Your task to perform on an android device: View the shopping cart on newegg.com. Image 0: 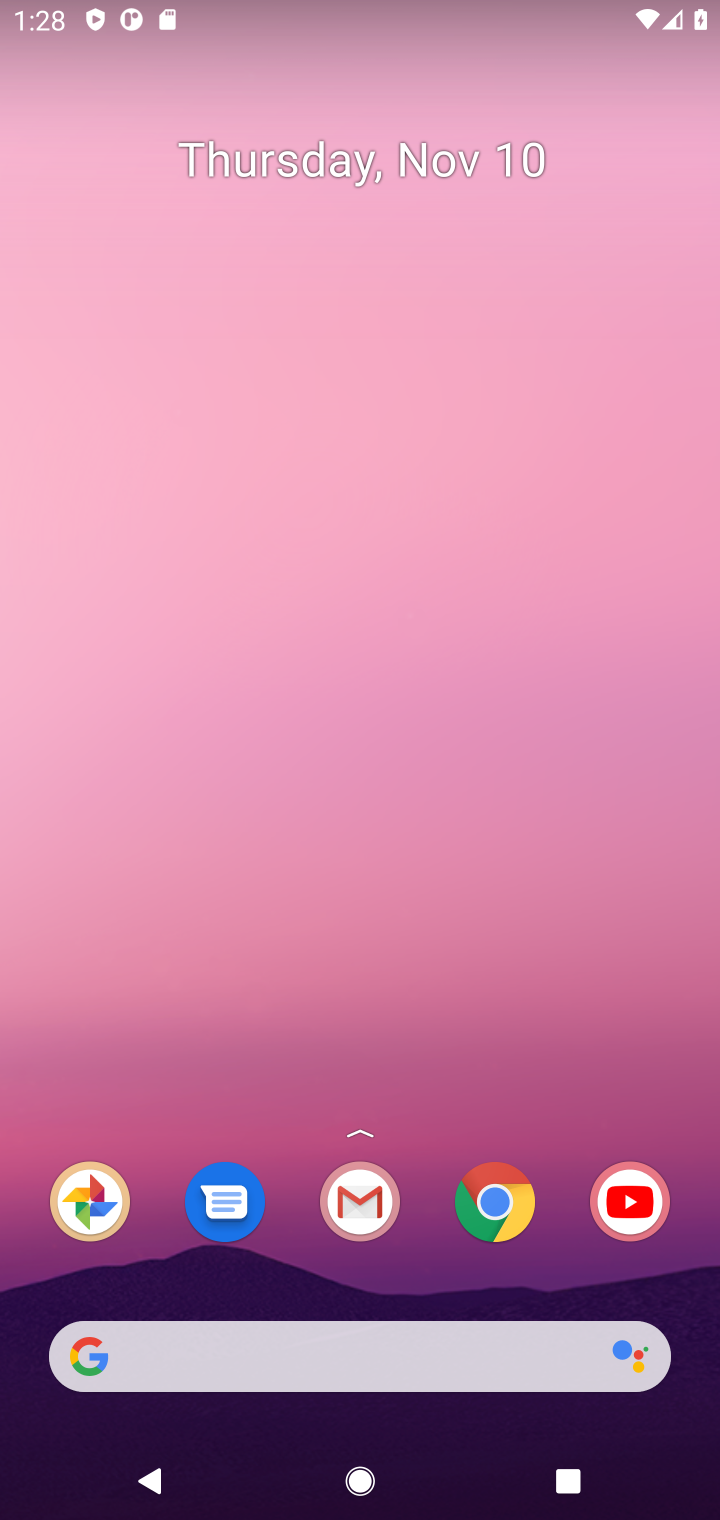
Step 0: click (483, 1202)
Your task to perform on an android device: View the shopping cart on newegg.com. Image 1: 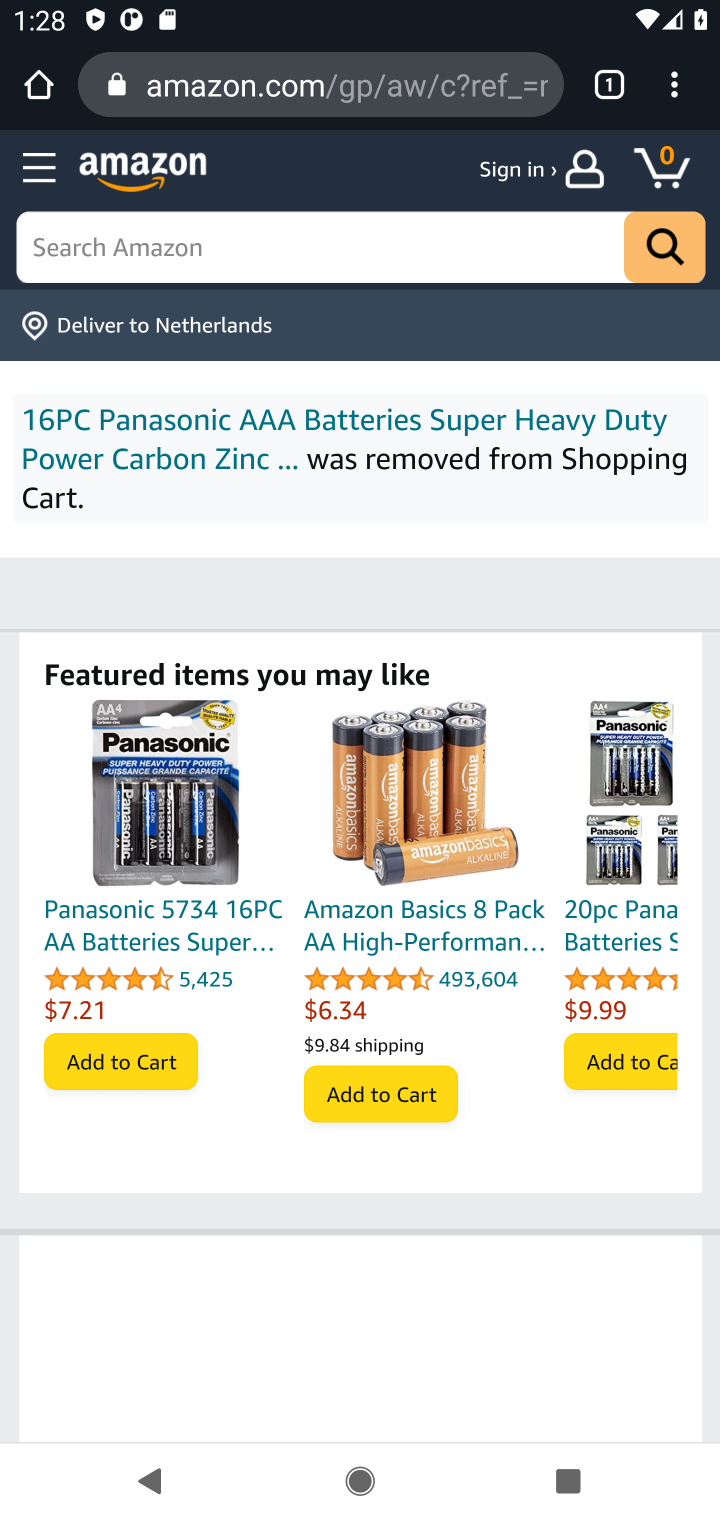
Step 1: click (308, 245)
Your task to perform on an android device: View the shopping cart on newegg.com. Image 2: 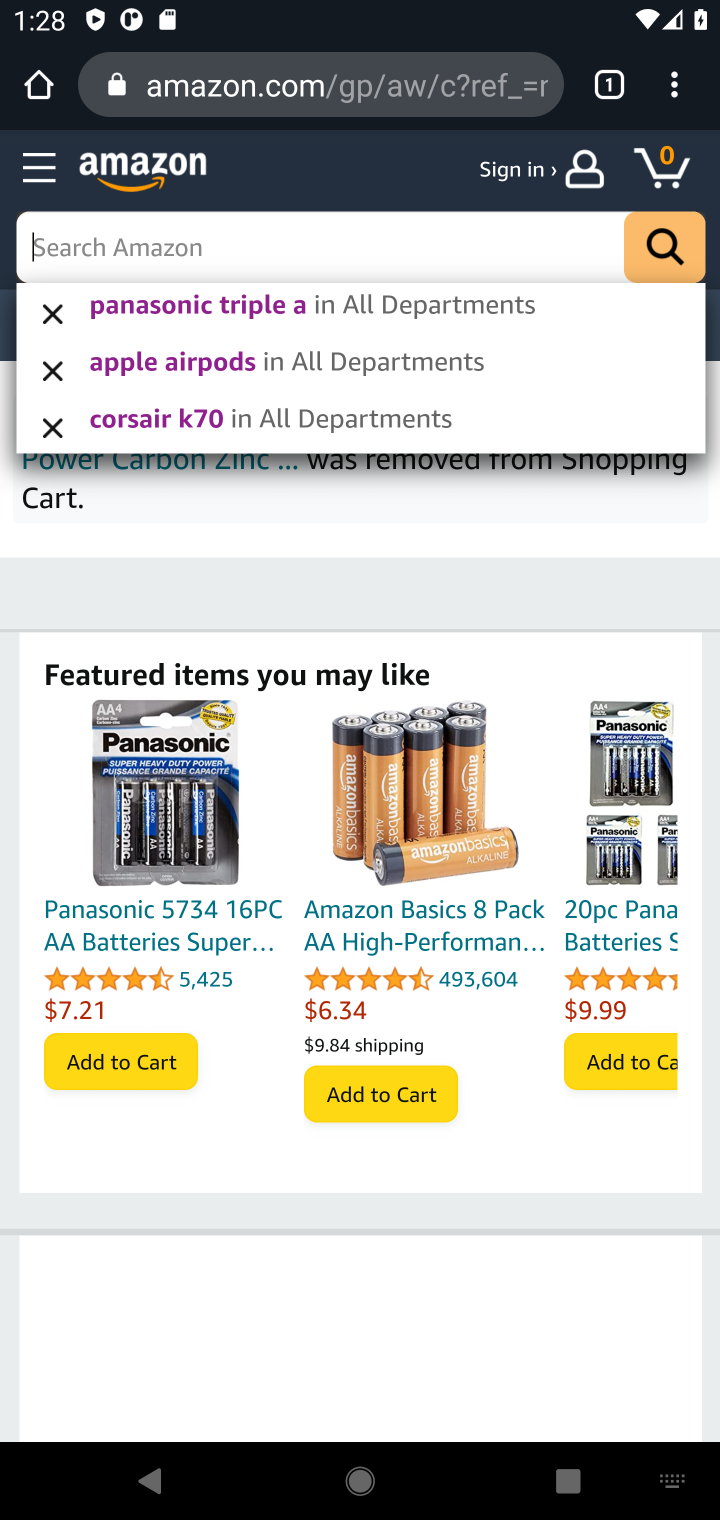
Step 2: click (349, 82)
Your task to perform on an android device: View the shopping cart on newegg.com. Image 3: 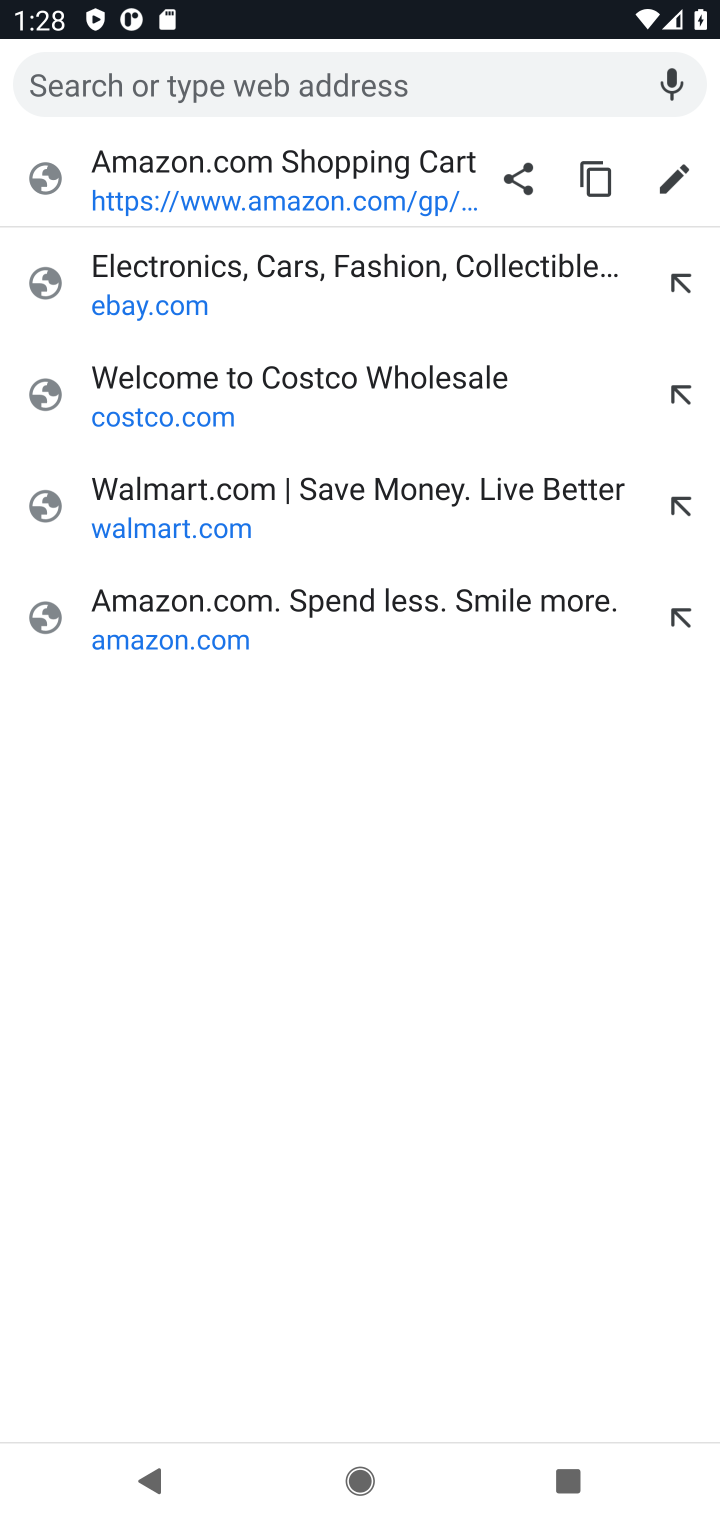
Step 3: type "newegg.com"
Your task to perform on an android device: View the shopping cart on newegg.com. Image 4: 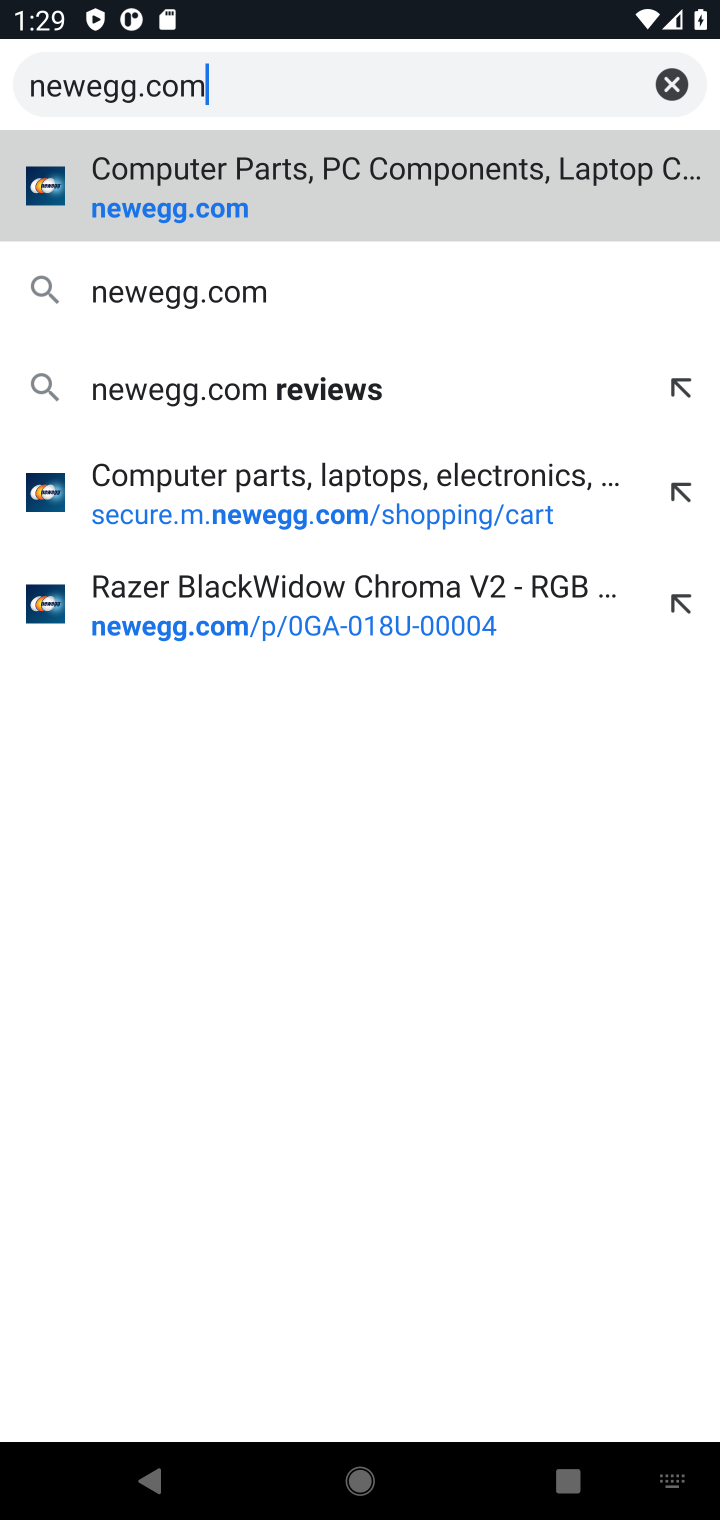
Step 4: click (173, 295)
Your task to perform on an android device: View the shopping cart on newegg.com. Image 5: 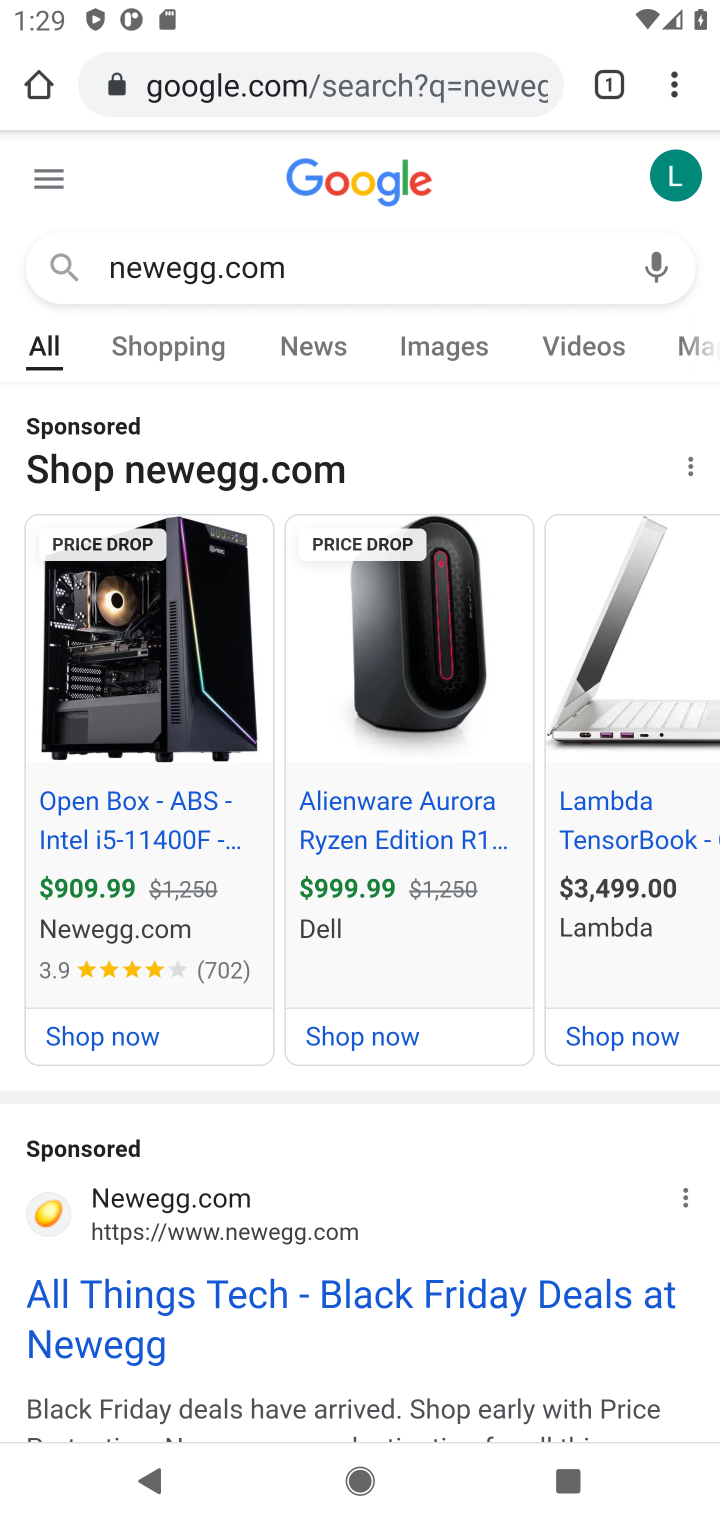
Step 5: click (319, 1218)
Your task to perform on an android device: View the shopping cart on newegg.com. Image 6: 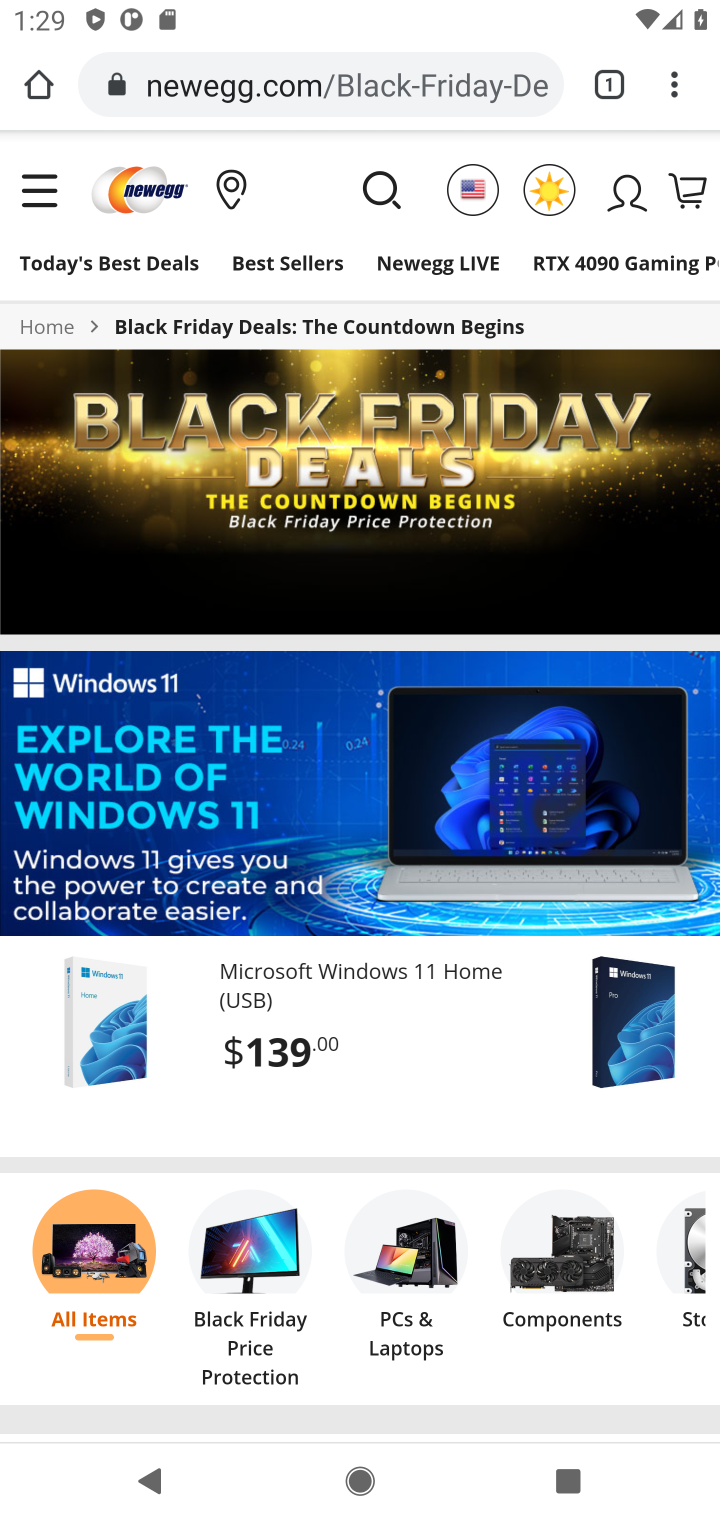
Step 6: click (684, 202)
Your task to perform on an android device: View the shopping cart on newegg.com. Image 7: 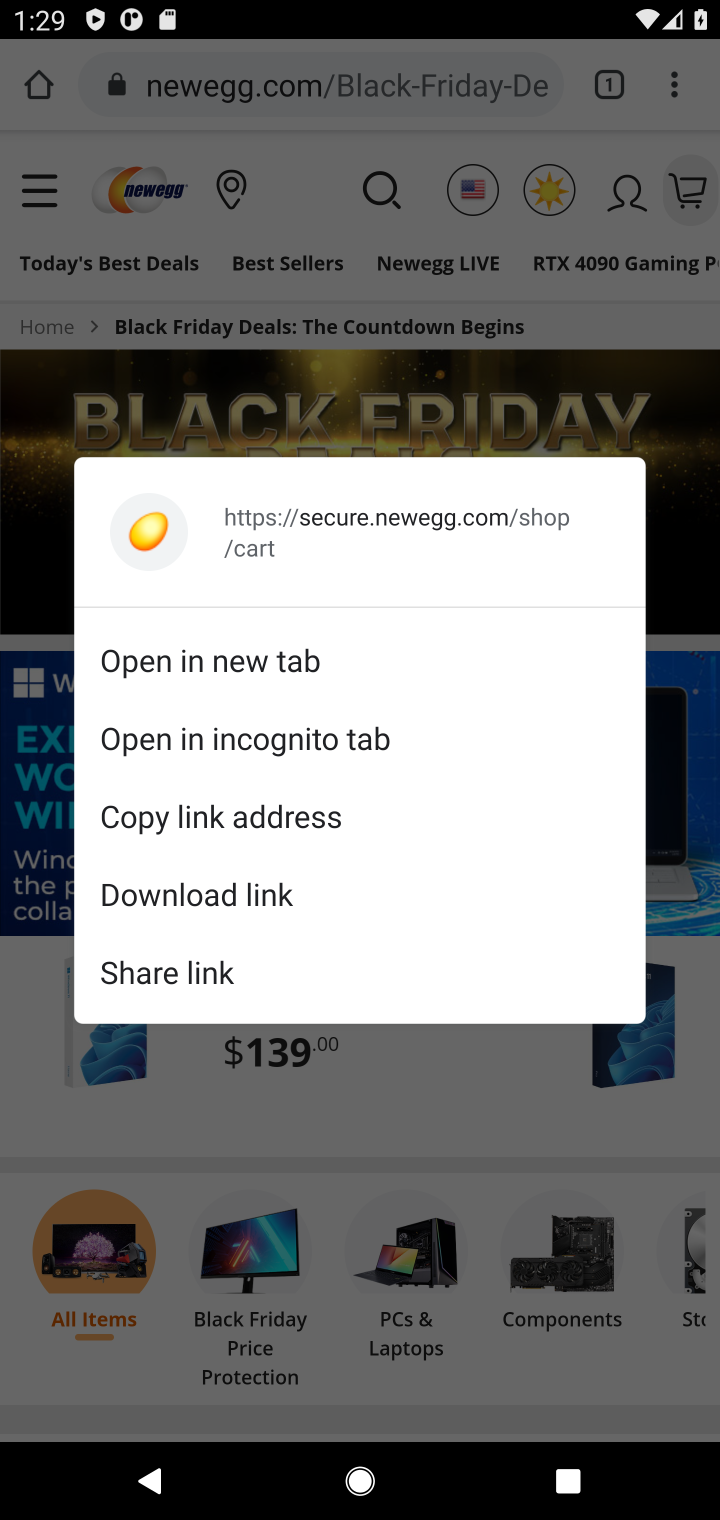
Step 7: click (668, 214)
Your task to perform on an android device: View the shopping cart on newegg.com. Image 8: 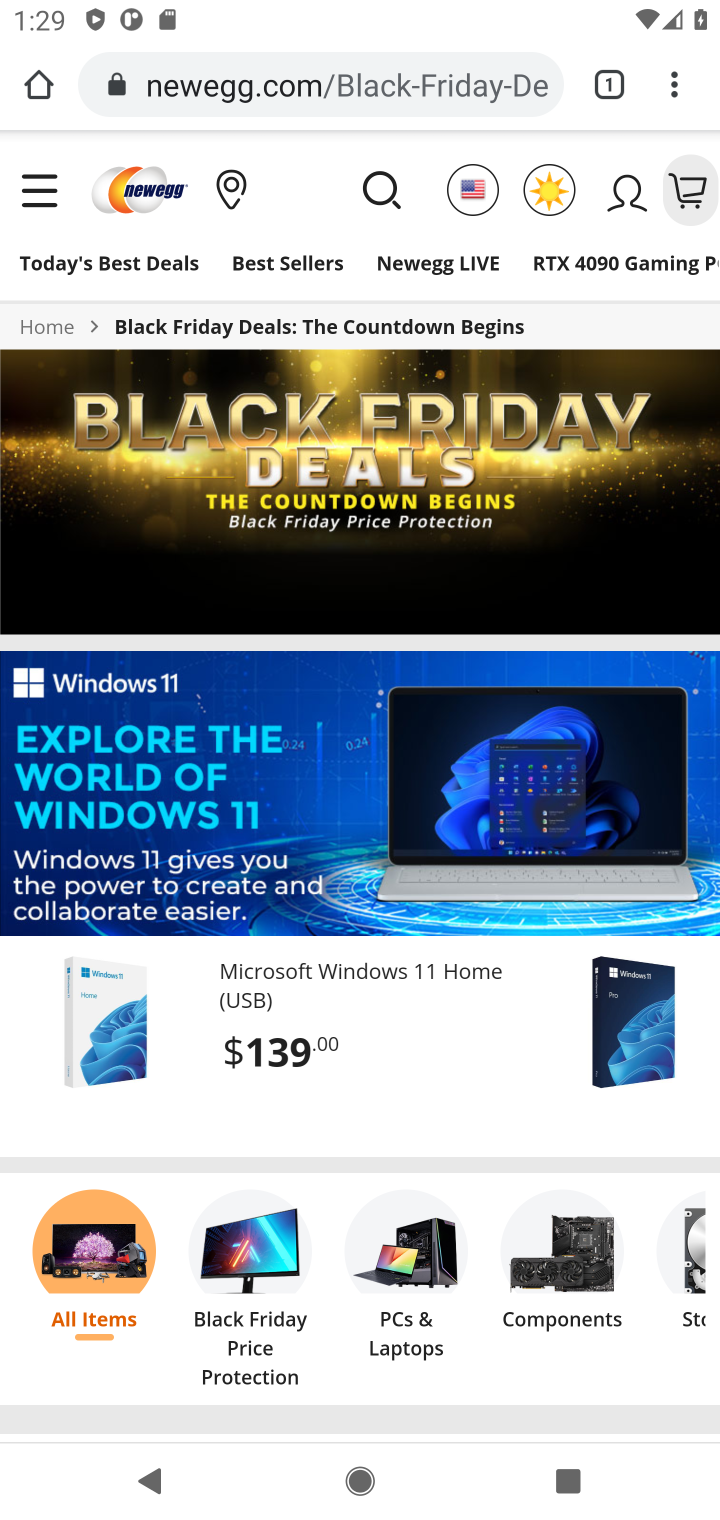
Step 8: task complete